Your task to perform on an android device: What's on my calendar tomorrow? Image 0: 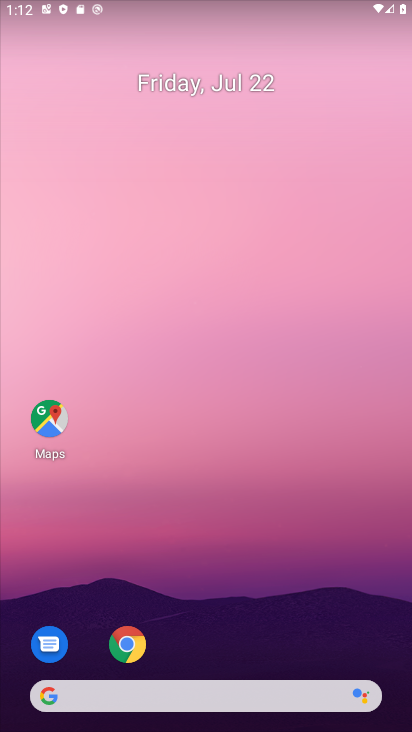
Step 0: press home button
Your task to perform on an android device: What's on my calendar tomorrow? Image 1: 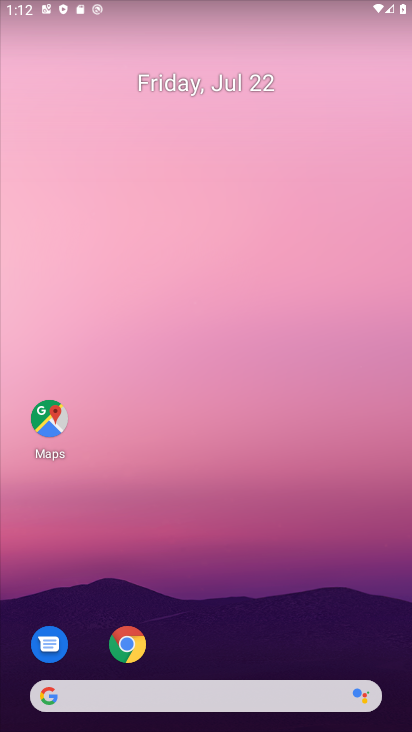
Step 1: drag from (241, 657) to (259, 0)
Your task to perform on an android device: What's on my calendar tomorrow? Image 2: 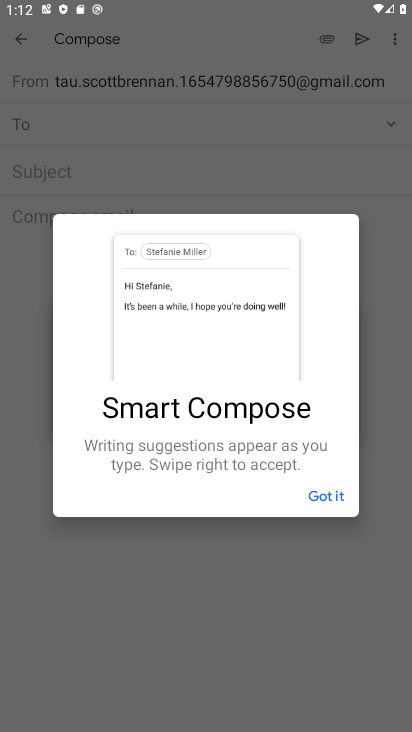
Step 2: press home button
Your task to perform on an android device: What's on my calendar tomorrow? Image 3: 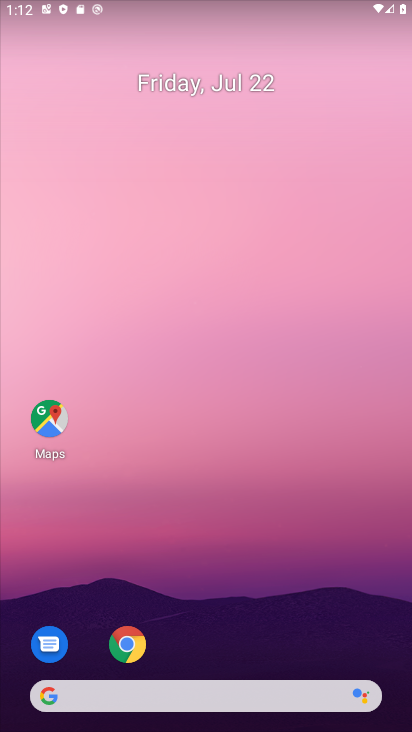
Step 3: drag from (246, 650) to (276, 78)
Your task to perform on an android device: What's on my calendar tomorrow? Image 4: 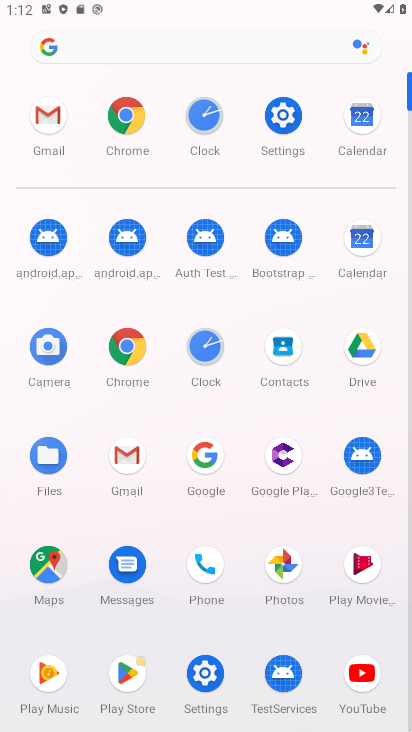
Step 4: click (362, 239)
Your task to perform on an android device: What's on my calendar tomorrow? Image 5: 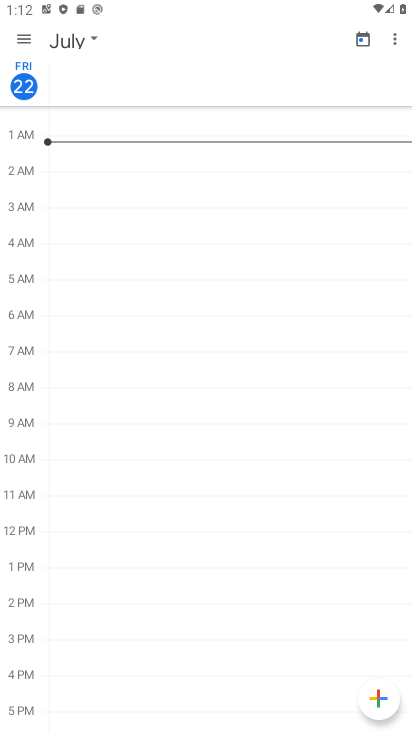
Step 5: click (88, 39)
Your task to perform on an android device: What's on my calendar tomorrow? Image 6: 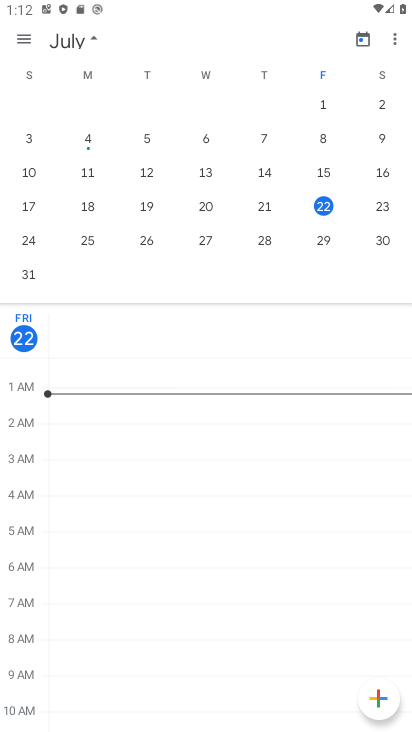
Step 6: click (383, 204)
Your task to perform on an android device: What's on my calendar tomorrow? Image 7: 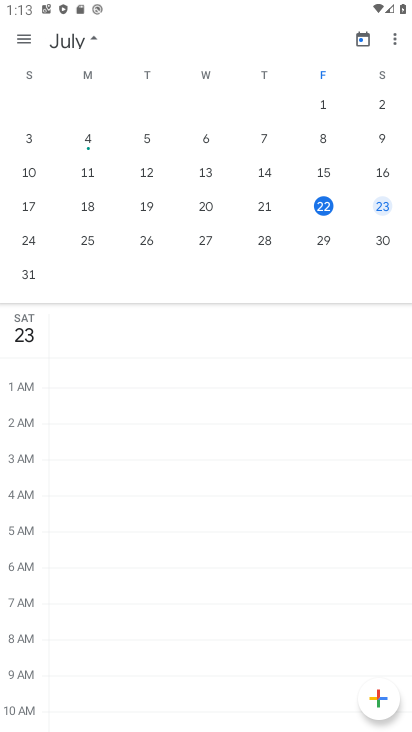
Step 7: click (90, 32)
Your task to perform on an android device: What's on my calendar tomorrow? Image 8: 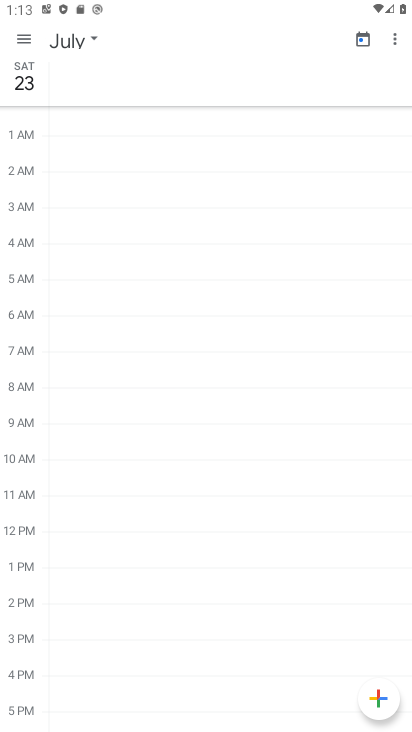
Step 8: task complete